Your task to perform on an android device: See recent photos Image 0: 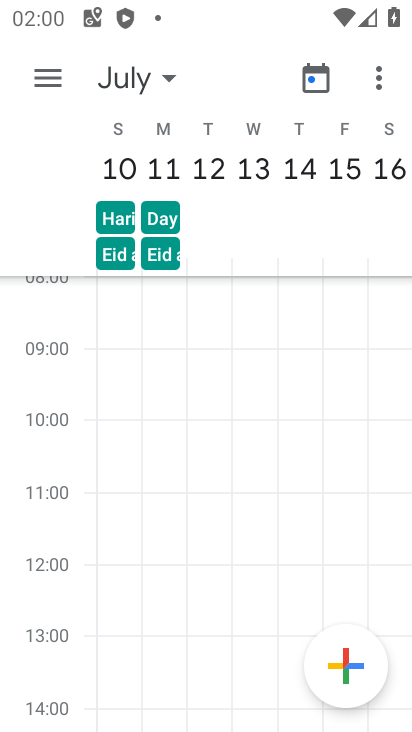
Step 0: press home button
Your task to perform on an android device: See recent photos Image 1: 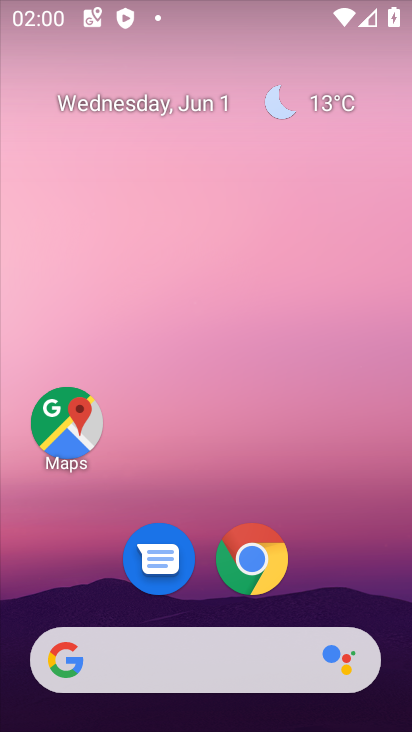
Step 1: drag from (382, 694) to (267, 242)
Your task to perform on an android device: See recent photos Image 2: 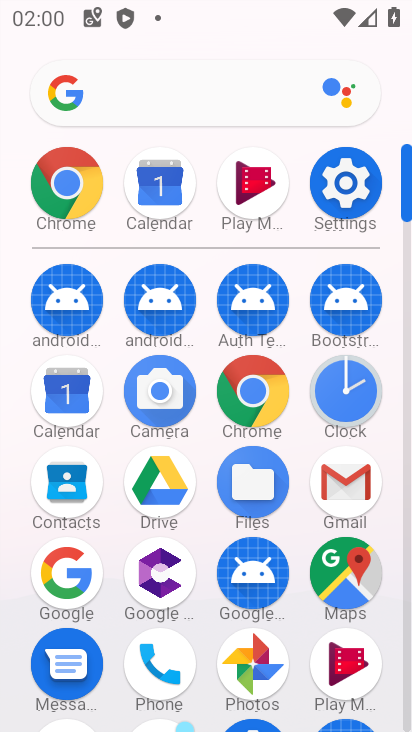
Step 2: click (238, 654)
Your task to perform on an android device: See recent photos Image 3: 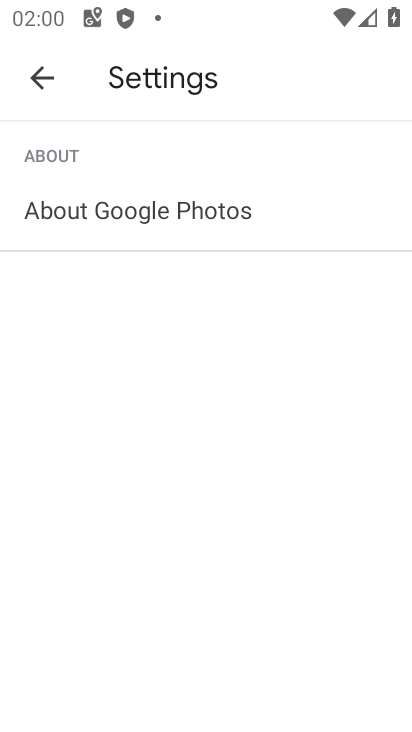
Step 3: click (38, 82)
Your task to perform on an android device: See recent photos Image 4: 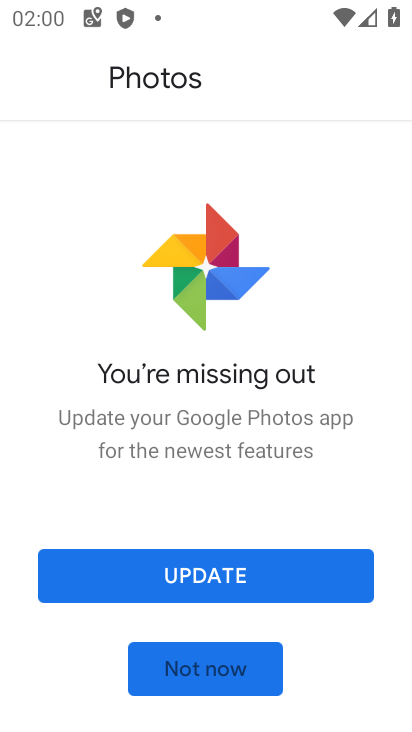
Step 4: click (192, 581)
Your task to perform on an android device: See recent photos Image 5: 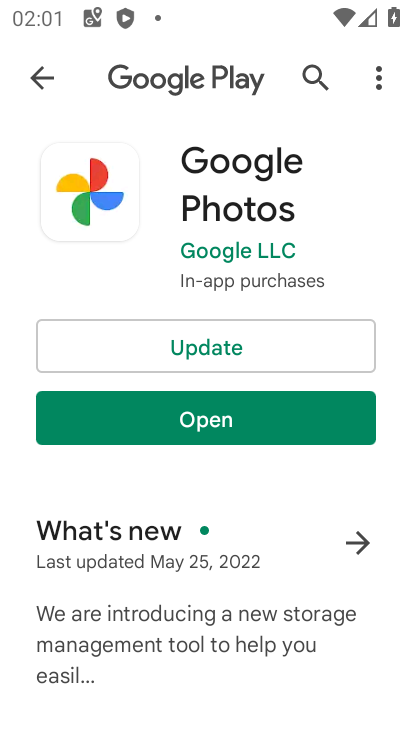
Step 5: click (254, 343)
Your task to perform on an android device: See recent photos Image 6: 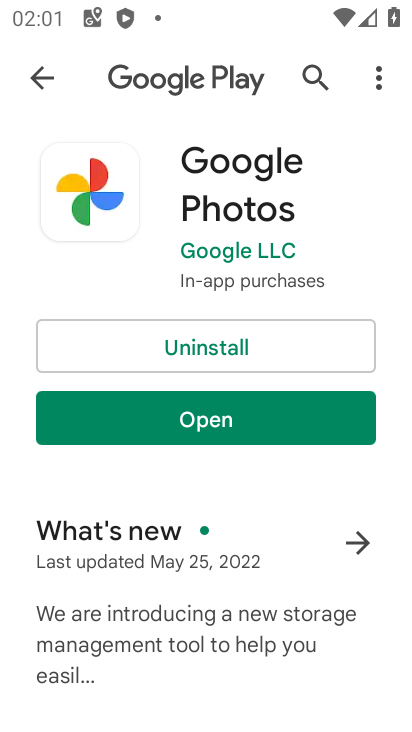
Step 6: click (212, 409)
Your task to perform on an android device: See recent photos Image 7: 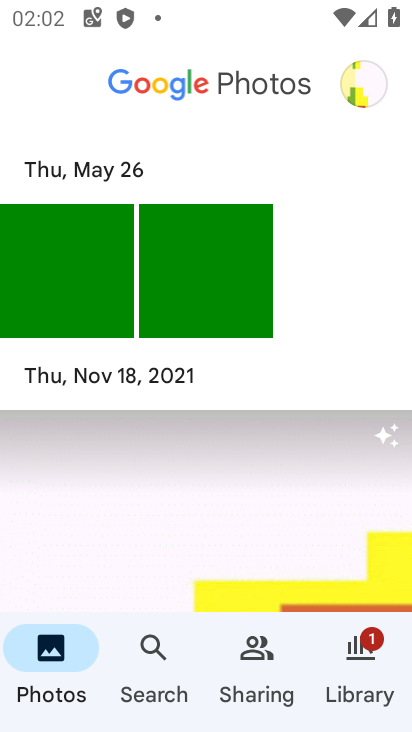
Step 7: task complete